Your task to perform on an android device: What's the weather going to be tomorrow? Image 0: 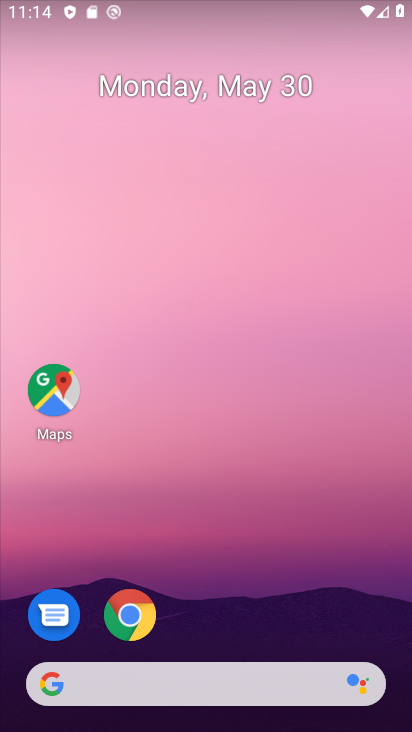
Step 0: drag from (388, 600) to (392, 475)
Your task to perform on an android device: What's the weather going to be tomorrow? Image 1: 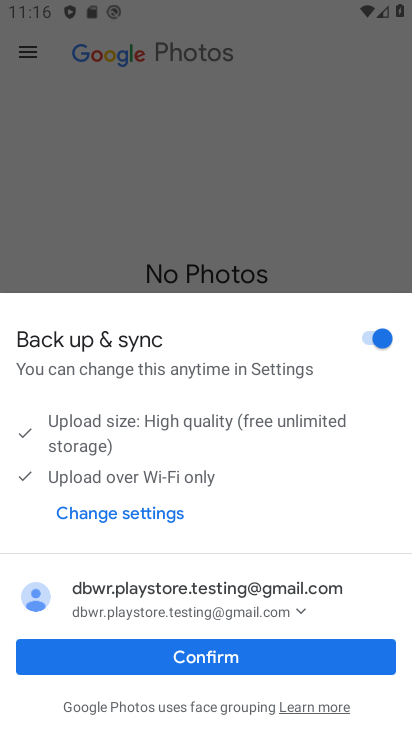
Step 1: press home button
Your task to perform on an android device: What's the weather going to be tomorrow? Image 2: 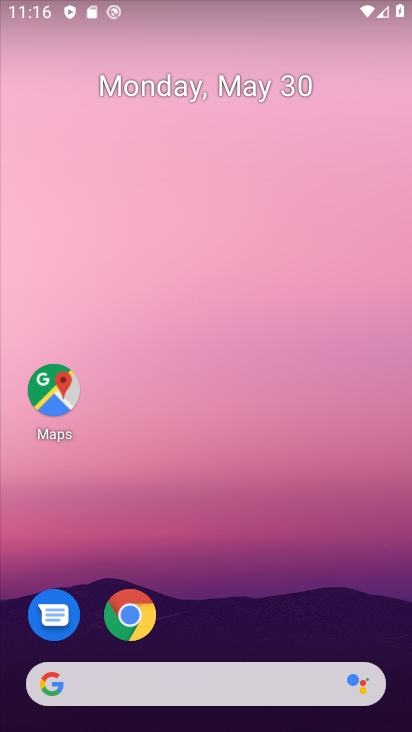
Step 2: click (272, 690)
Your task to perform on an android device: What's the weather going to be tomorrow? Image 3: 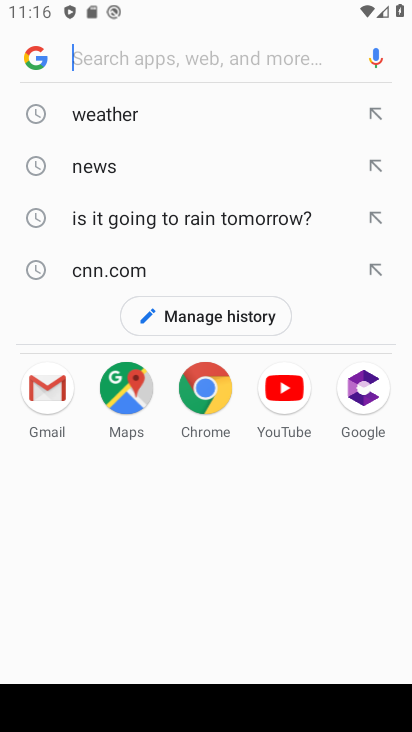
Step 3: click (125, 117)
Your task to perform on an android device: What's the weather going to be tomorrow? Image 4: 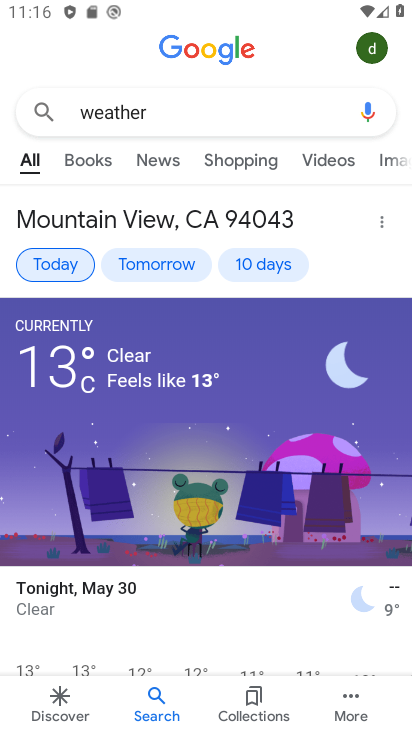
Step 4: click (141, 264)
Your task to perform on an android device: What's the weather going to be tomorrow? Image 5: 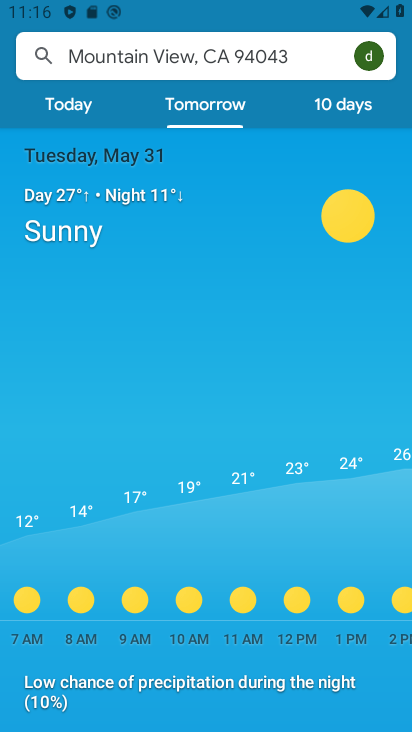
Step 5: task complete